Your task to perform on an android device: turn on priority inbox in the gmail app Image 0: 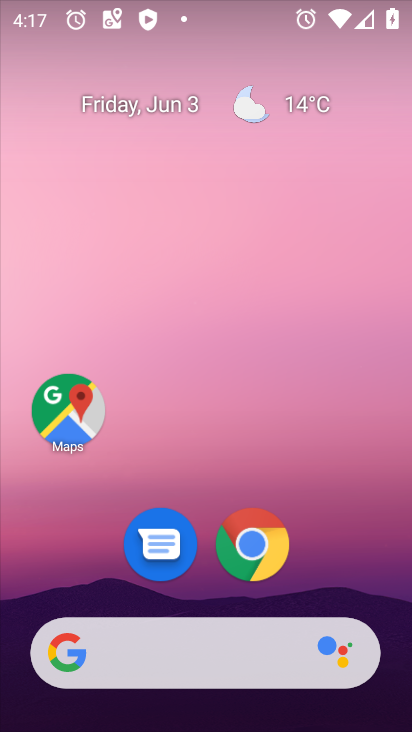
Step 0: drag from (383, 602) to (348, 34)
Your task to perform on an android device: turn on priority inbox in the gmail app Image 1: 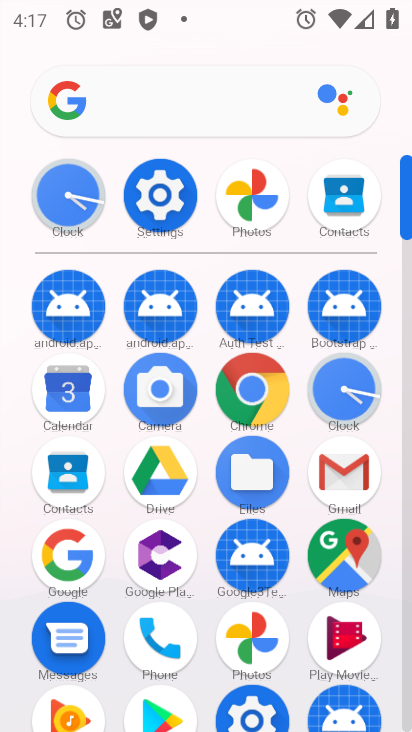
Step 1: click (343, 466)
Your task to perform on an android device: turn on priority inbox in the gmail app Image 2: 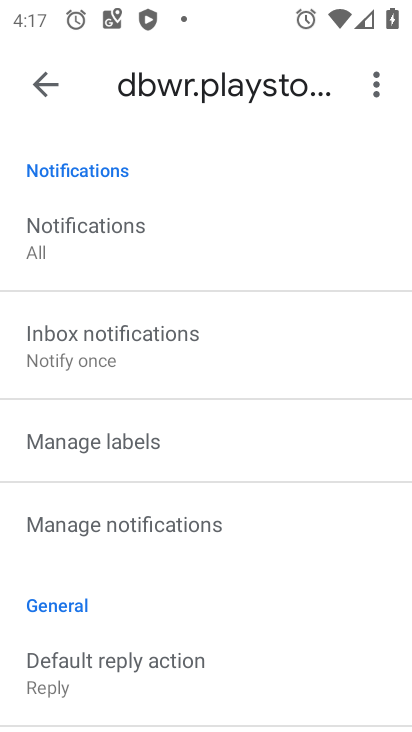
Step 2: drag from (300, 299) to (303, 478)
Your task to perform on an android device: turn on priority inbox in the gmail app Image 3: 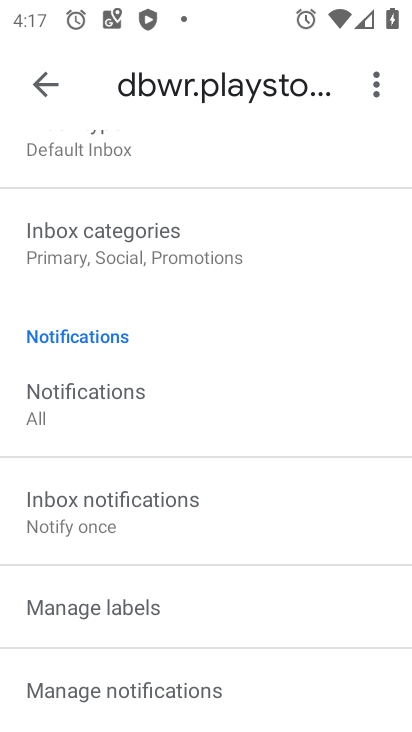
Step 3: drag from (269, 371) to (281, 495)
Your task to perform on an android device: turn on priority inbox in the gmail app Image 4: 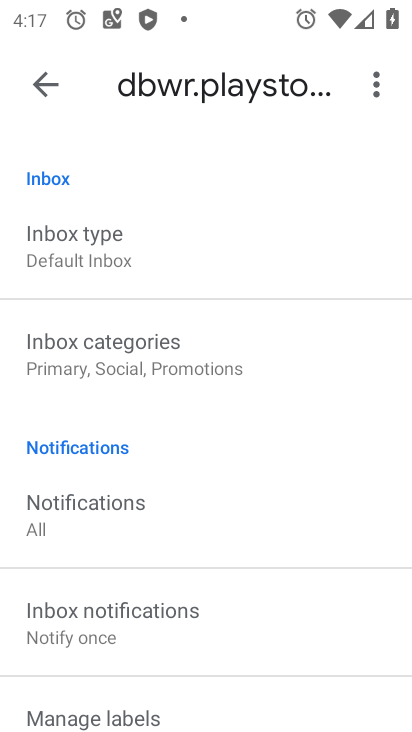
Step 4: click (61, 238)
Your task to perform on an android device: turn on priority inbox in the gmail app Image 5: 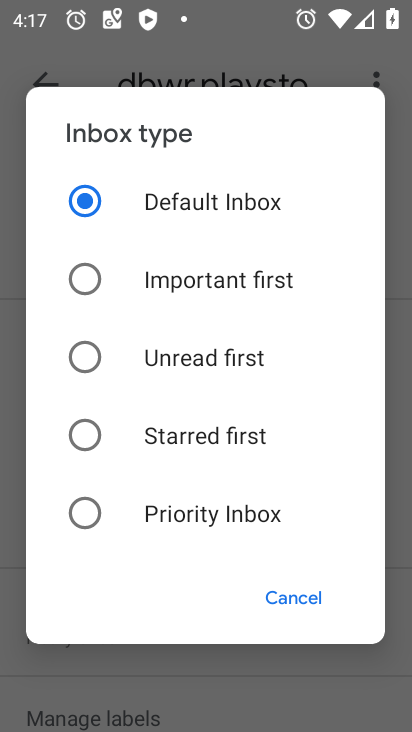
Step 5: click (88, 510)
Your task to perform on an android device: turn on priority inbox in the gmail app Image 6: 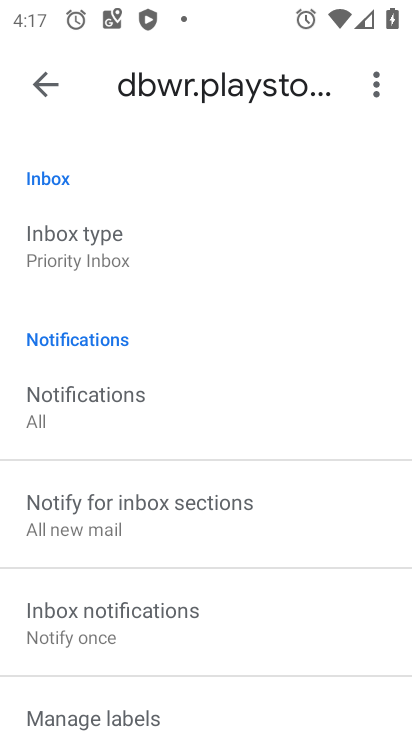
Step 6: task complete